Your task to perform on an android device: Open ESPN.com Image 0: 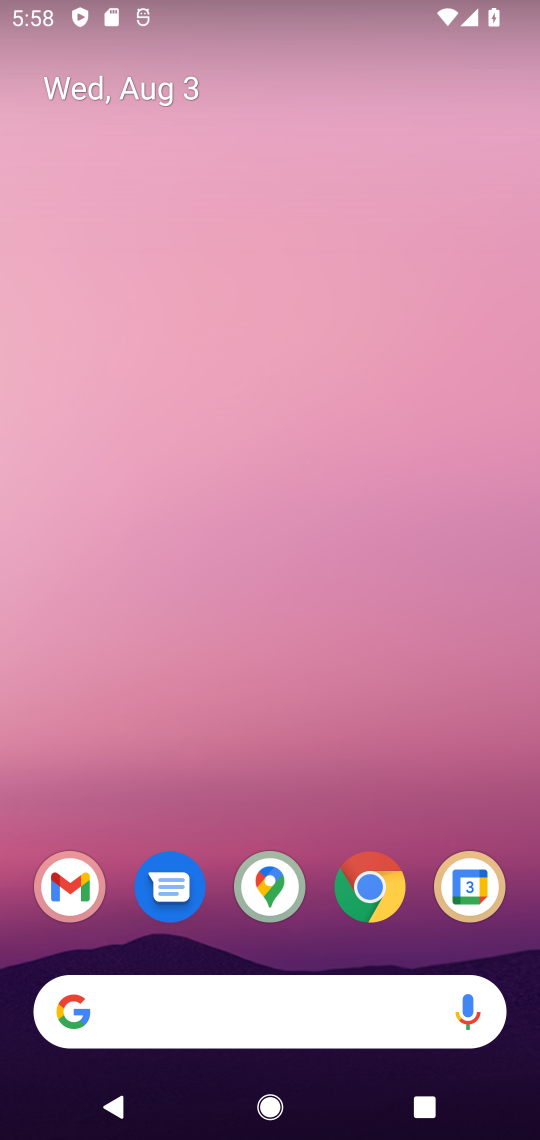
Step 0: click (366, 875)
Your task to perform on an android device: Open ESPN.com Image 1: 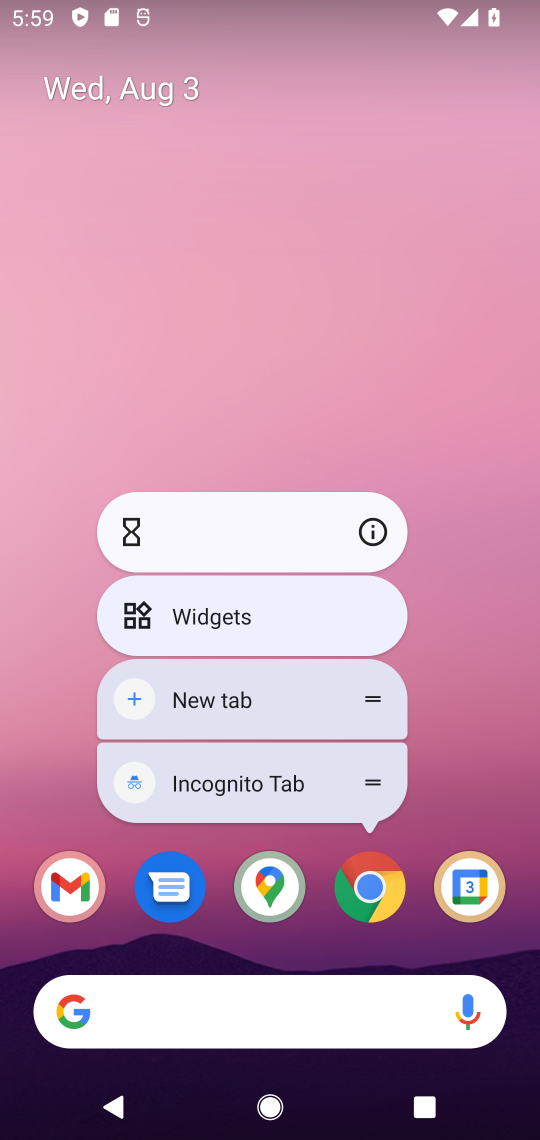
Step 1: click (369, 875)
Your task to perform on an android device: Open ESPN.com Image 2: 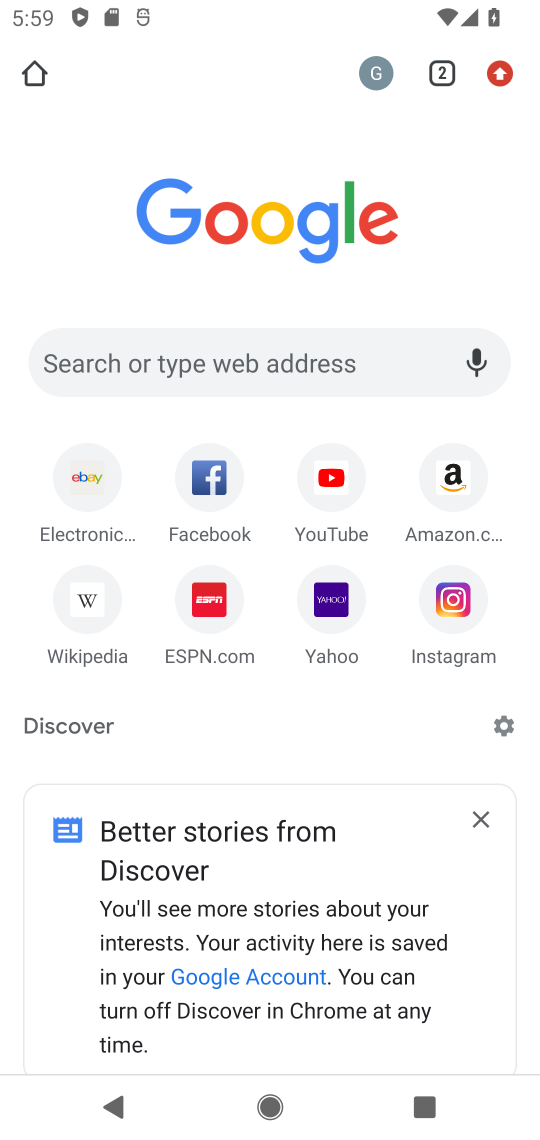
Step 2: click (194, 569)
Your task to perform on an android device: Open ESPN.com Image 3: 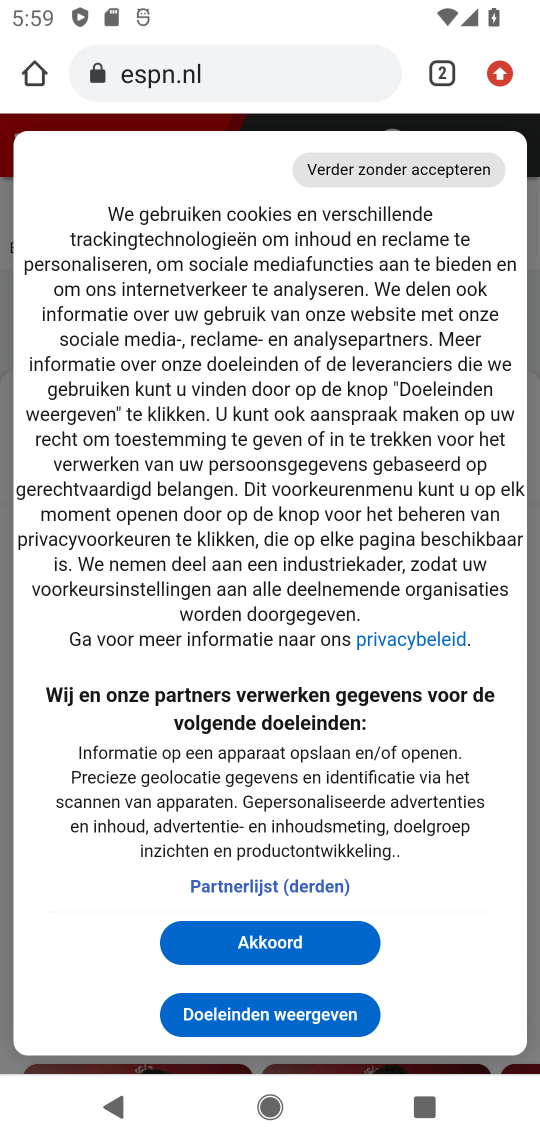
Step 3: task complete